Your task to perform on an android device: Is it going to rain this weekend? Image 0: 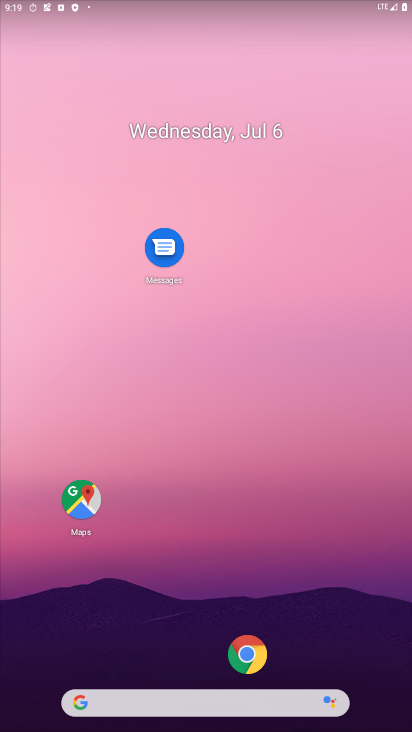
Step 0: click (165, 705)
Your task to perform on an android device: Is it going to rain this weekend? Image 1: 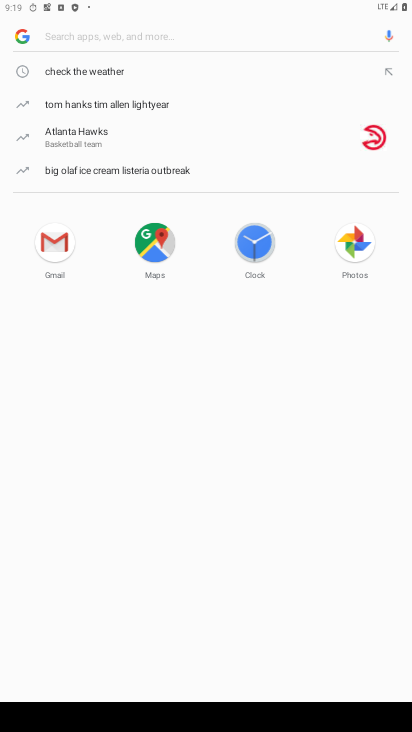
Step 1: type "this weekend weather"
Your task to perform on an android device: Is it going to rain this weekend? Image 2: 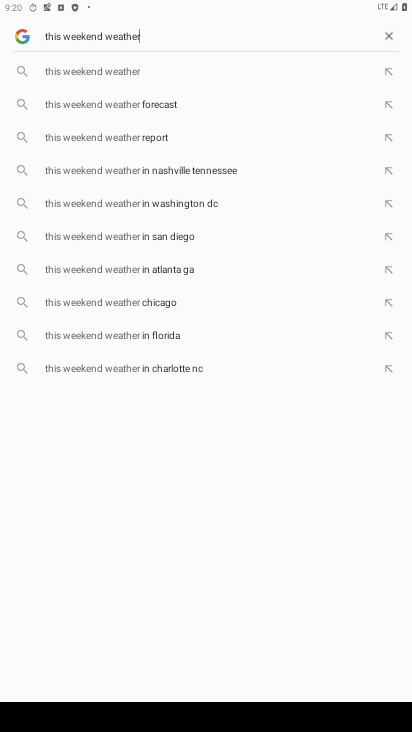
Step 2: click (275, 68)
Your task to perform on an android device: Is it going to rain this weekend? Image 3: 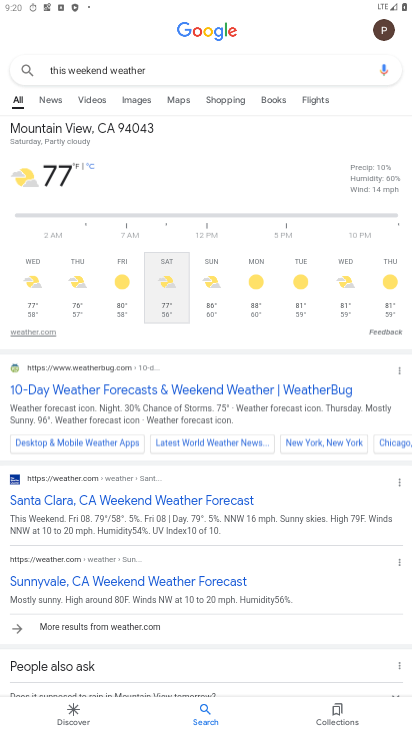
Step 3: task complete